Your task to perform on an android device: toggle airplane mode Image 0: 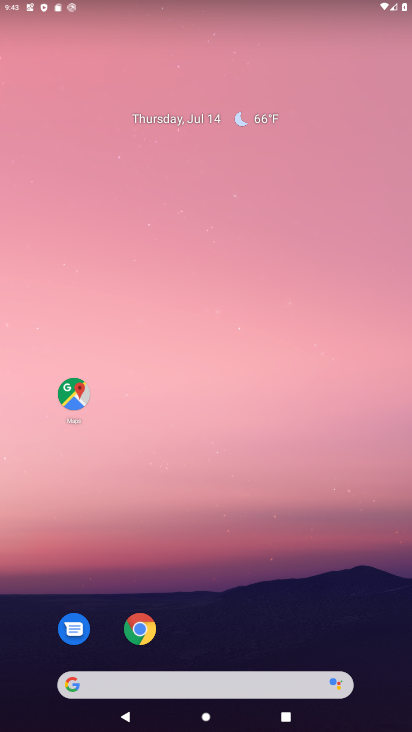
Step 0: press home button
Your task to perform on an android device: toggle airplane mode Image 1: 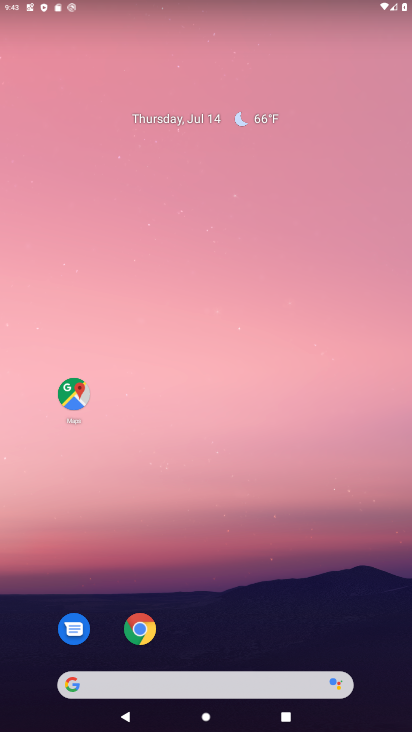
Step 1: drag from (238, 569) to (259, 5)
Your task to perform on an android device: toggle airplane mode Image 2: 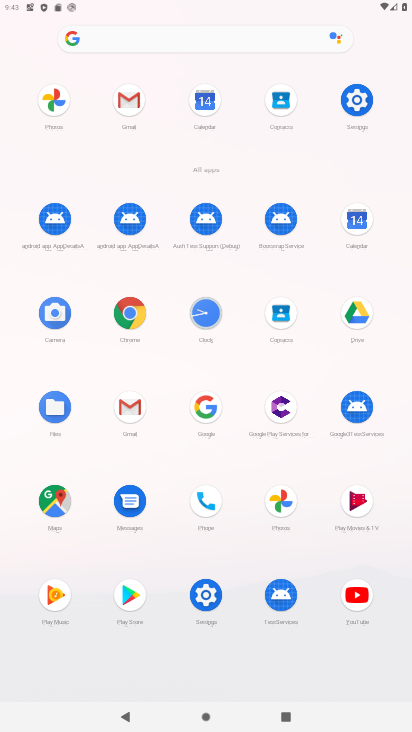
Step 2: click (355, 94)
Your task to perform on an android device: toggle airplane mode Image 3: 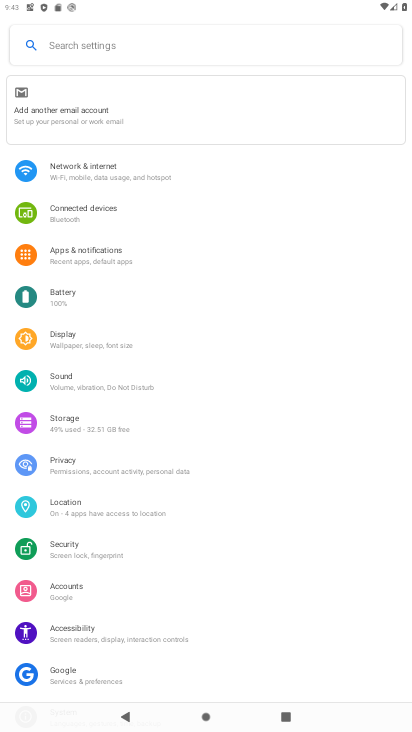
Step 3: click (183, 175)
Your task to perform on an android device: toggle airplane mode Image 4: 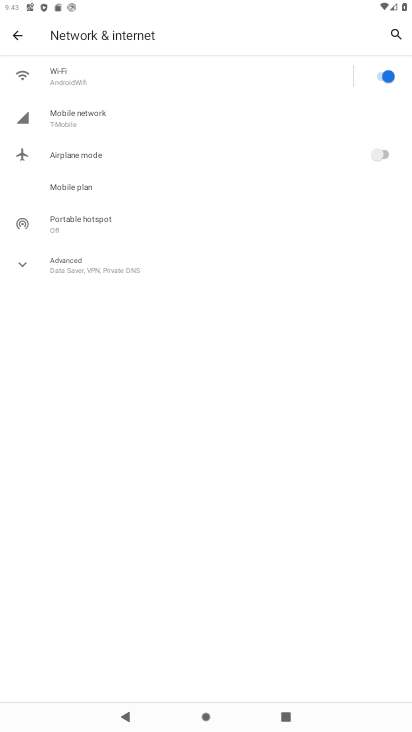
Step 4: click (383, 153)
Your task to perform on an android device: toggle airplane mode Image 5: 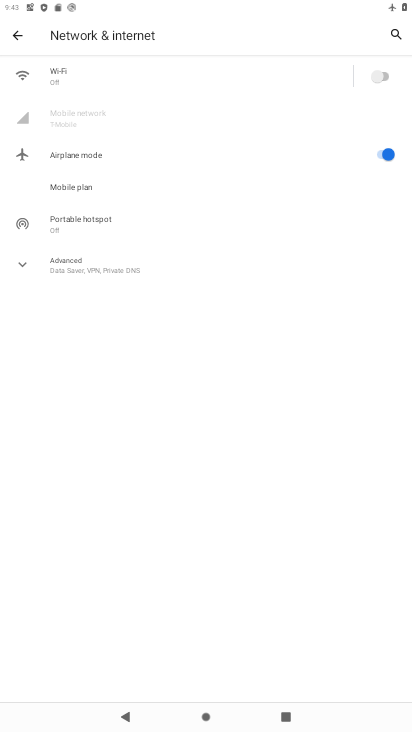
Step 5: task complete